Your task to perform on an android device: check data usage Image 0: 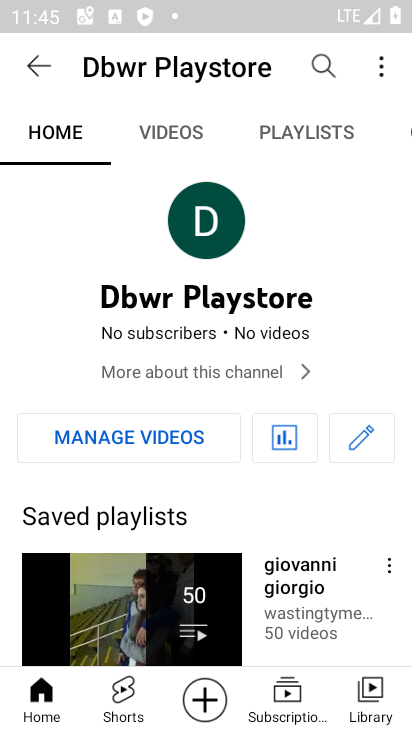
Step 0: press home button
Your task to perform on an android device: check data usage Image 1: 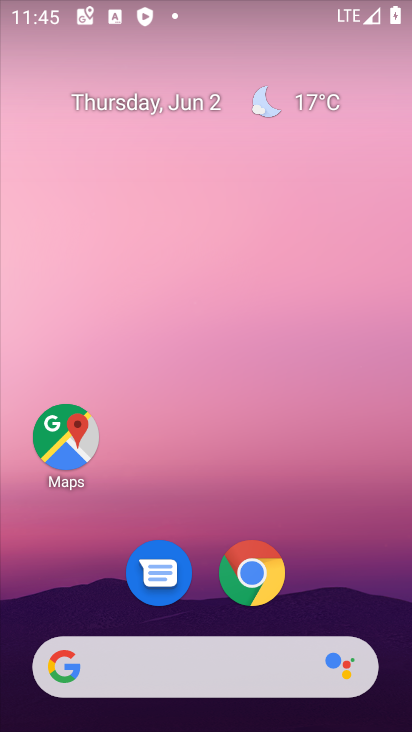
Step 1: drag from (328, 594) to (248, 30)
Your task to perform on an android device: check data usage Image 2: 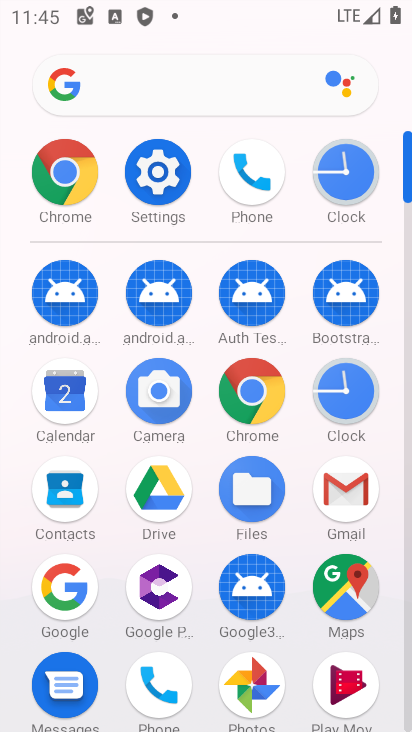
Step 2: click (152, 169)
Your task to perform on an android device: check data usage Image 3: 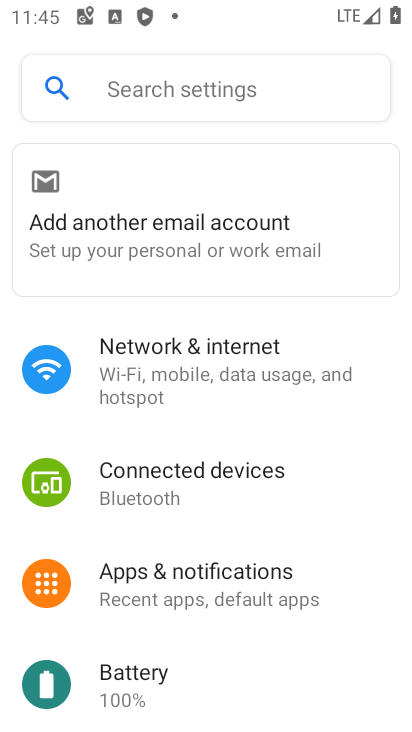
Step 3: click (194, 382)
Your task to perform on an android device: check data usage Image 4: 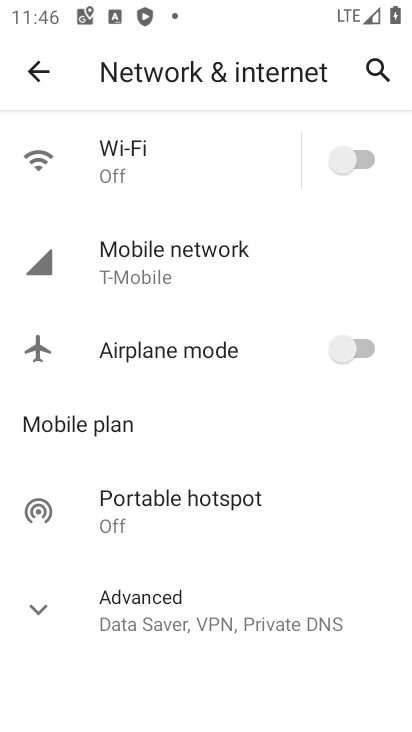
Step 4: click (212, 256)
Your task to perform on an android device: check data usage Image 5: 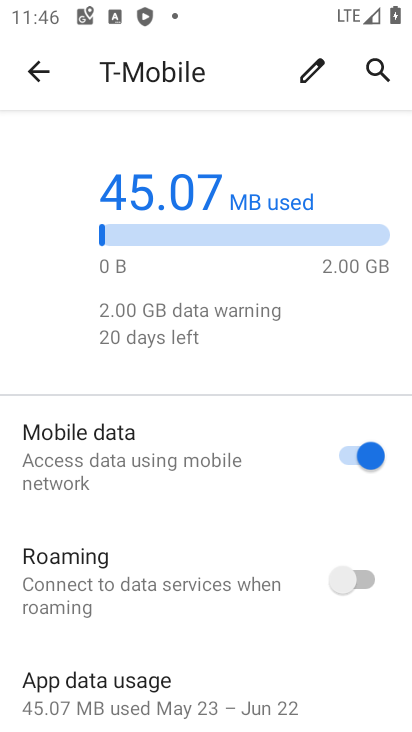
Step 5: task complete